Your task to perform on an android device: Go to calendar. Show me events next week Image 0: 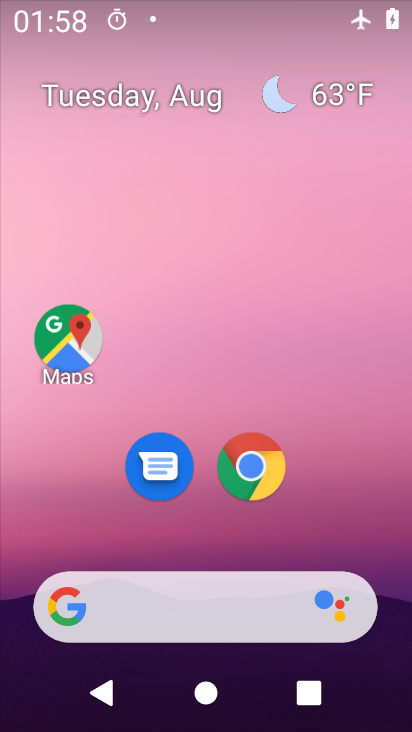
Step 0: press home button
Your task to perform on an android device: Go to calendar. Show me events next week Image 1: 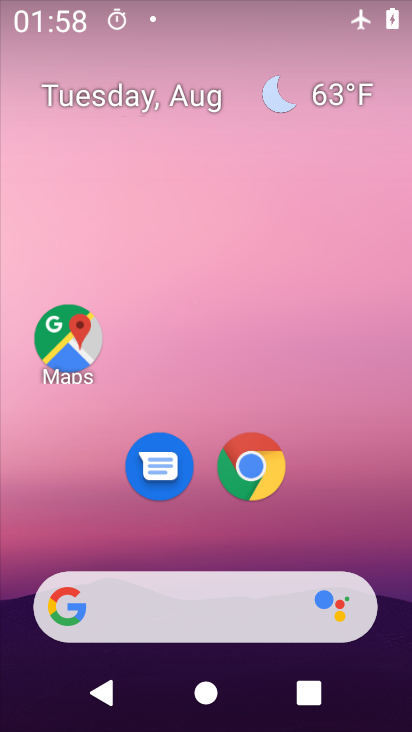
Step 1: drag from (336, 538) to (348, 122)
Your task to perform on an android device: Go to calendar. Show me events next week Image 2: 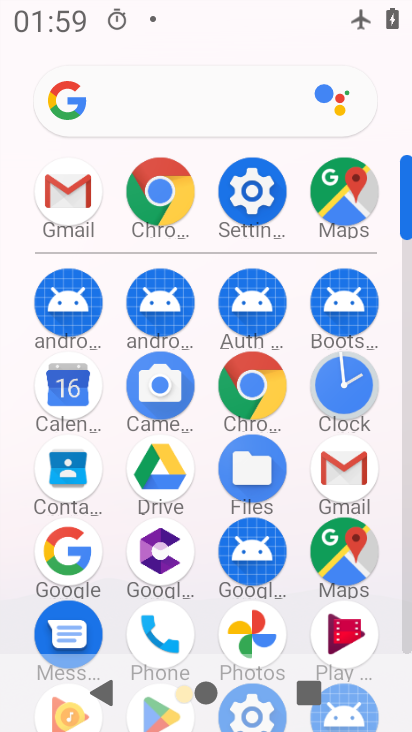
Step 2: click (76, 384)
Your task to perform on an android device: Go to calendar. Show me events next week Image 3: 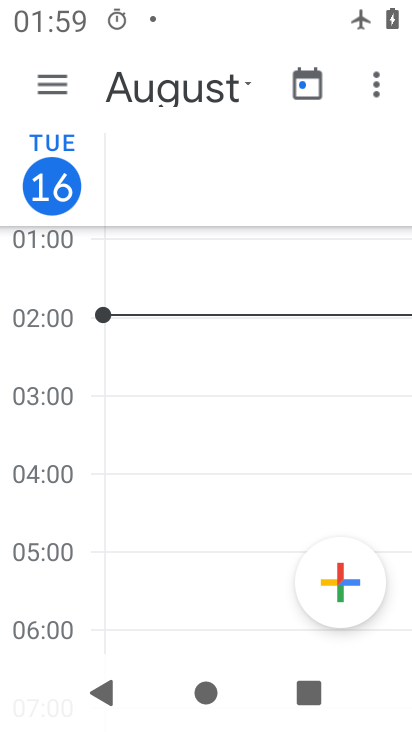
Step 3: click (52, 76)
Your task to perform on an android device: Go to calendar. Show me events next week Image 4: 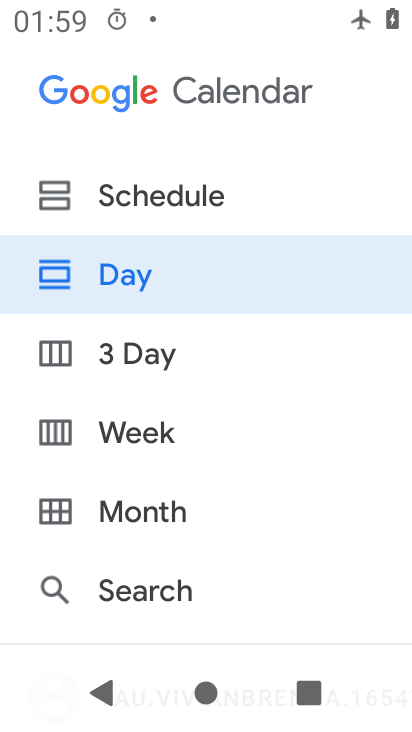
Step 4: click (163, 210)
Your task to perform on an android device: Go to calendar. Show me events next week Image 5: 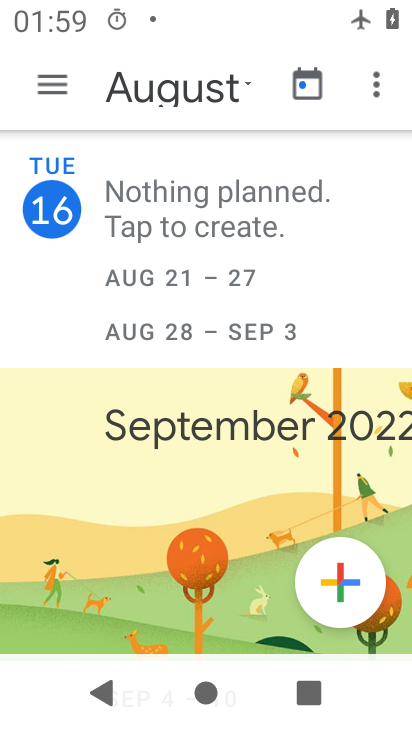
Step 5: click (249, 83)
Your task to perform on an android device: Go to calendar. Show me events next week Image 6: 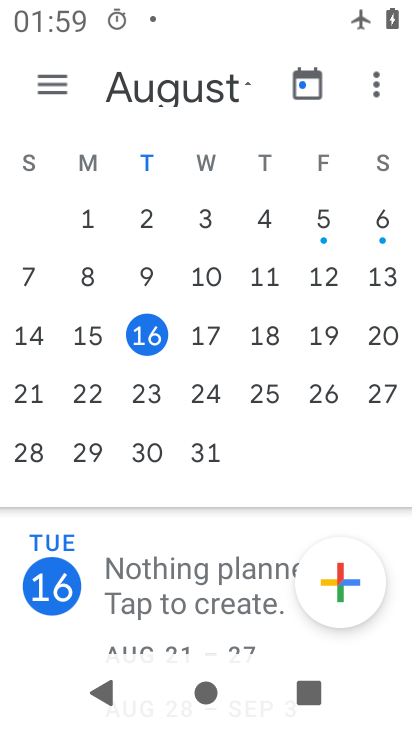
Step 6: click (86, 399)
Your task to perform on an android device: Go to calendar. Show me events next week Image 7: 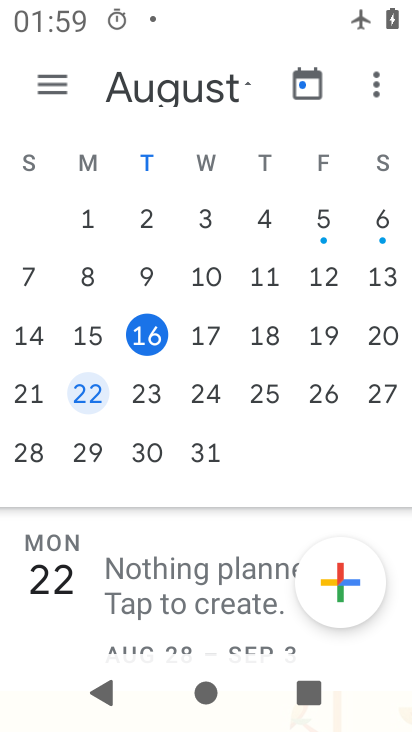
Step 7: task complete